Your task to perform on an android device: check google app version Image 0: 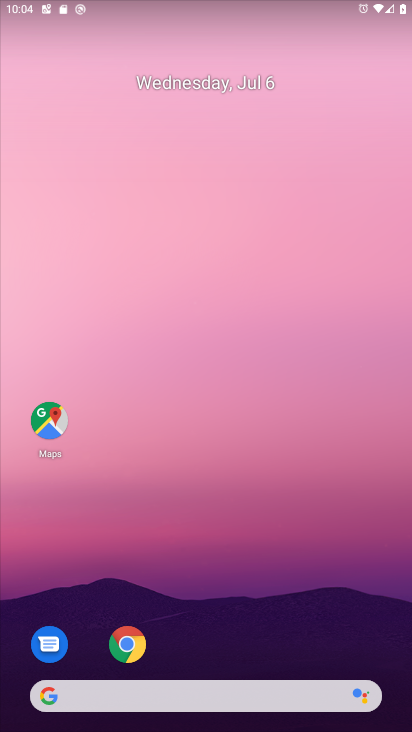
Step 0: drag from (222, 683) to (231, 291)
Your task to perform on an android device: check google app version Image 1: 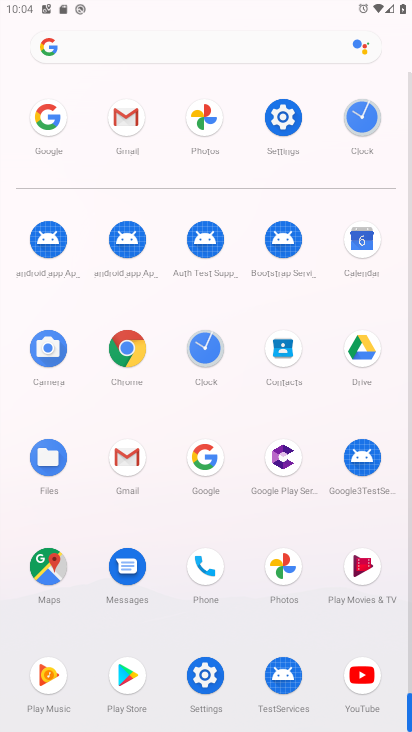
Step 1: click (208, 487)
Your task to perform on an android device: check google app version Image 2: 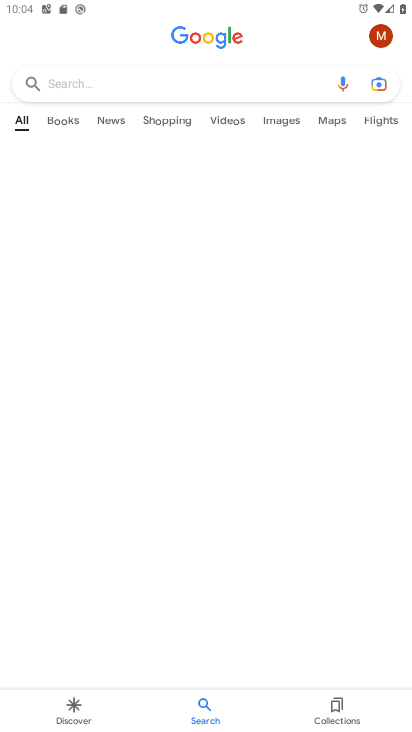
Step 2: click (382, 43)
Your task to perform on an android device: check google app version Image 3: 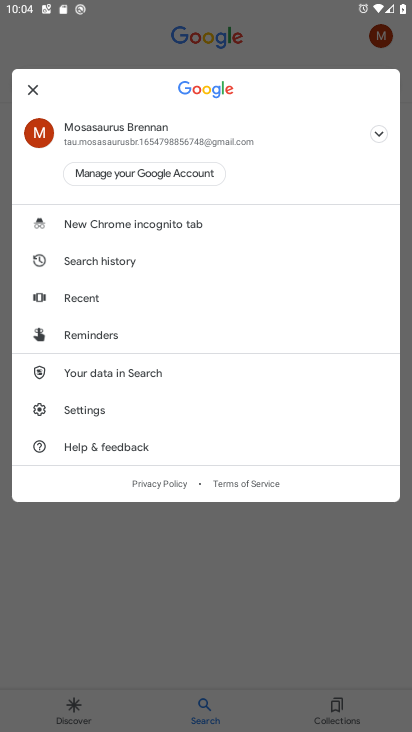
Step 3: click (78, 411)
Your task to perform on an android device: check google app version Image 4: 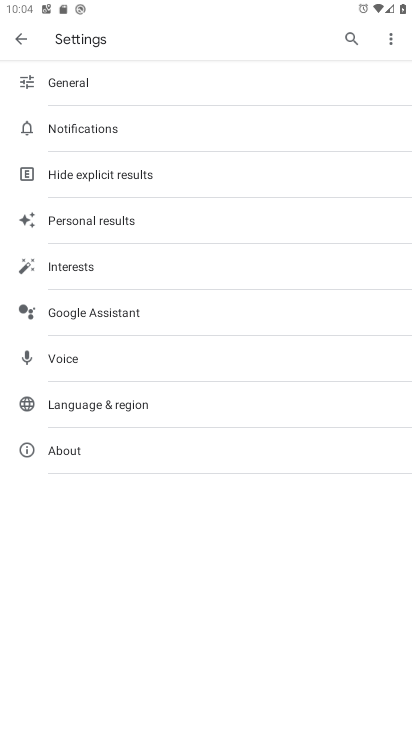
Step 4: click (87, 455)
Your task to perform on an android device: check google app version Image 5: 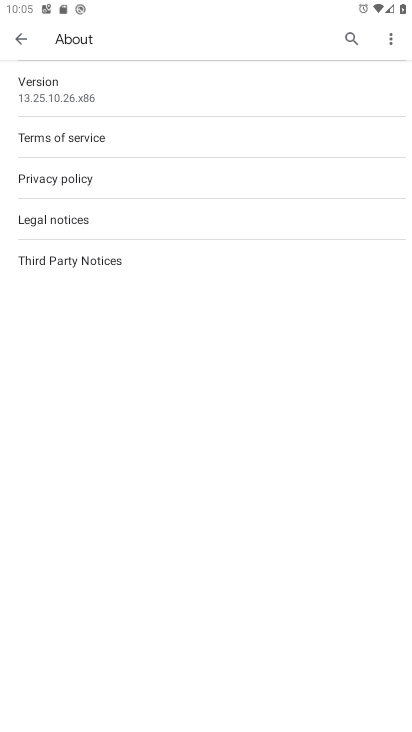
Step 5: click (79, 92)
Your task to perform on an android device: check google app version Image 6: 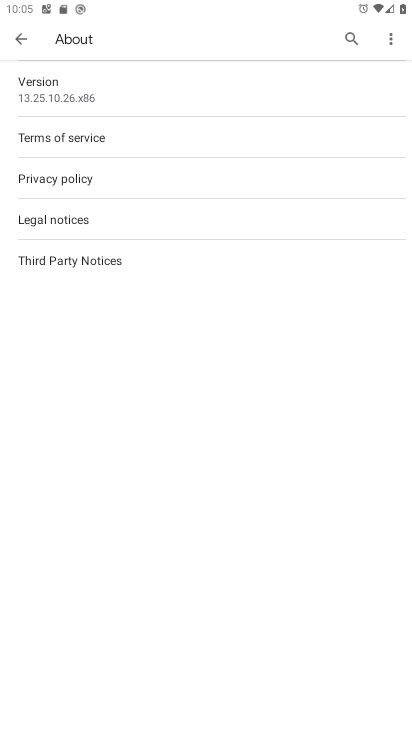
Step 6: task complete